Your task to perform on an android device: Open location settings Image 0: 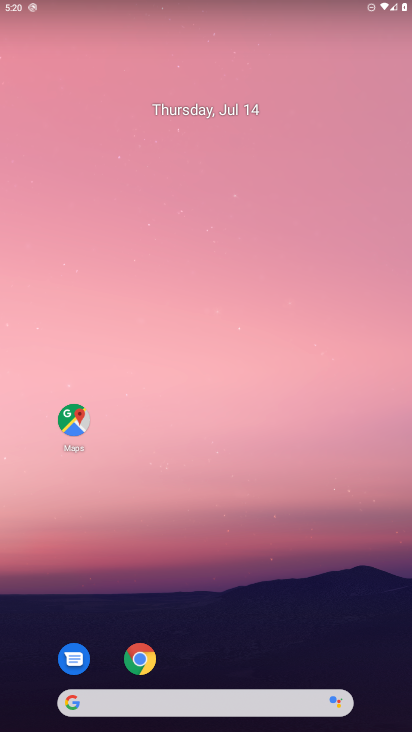
Step 0: drag from (221, 653) to (229, 103)
Your task to perform on an android device: Open location settings Image 1: 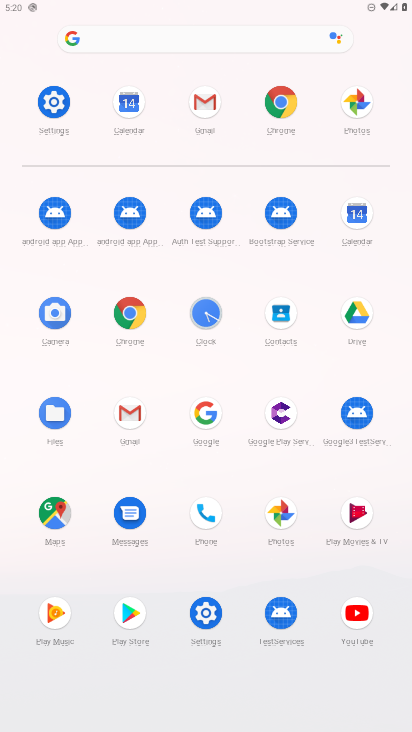
Step 1: click (55, 98)
Your task to perform on an android device: Open location settings Image 2: 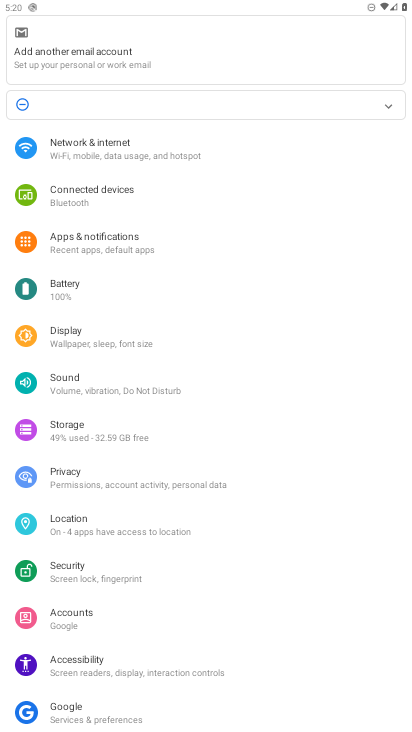
Step 2: click (82, 523)
Your task to perform on an android device: Open location settings Image 3: 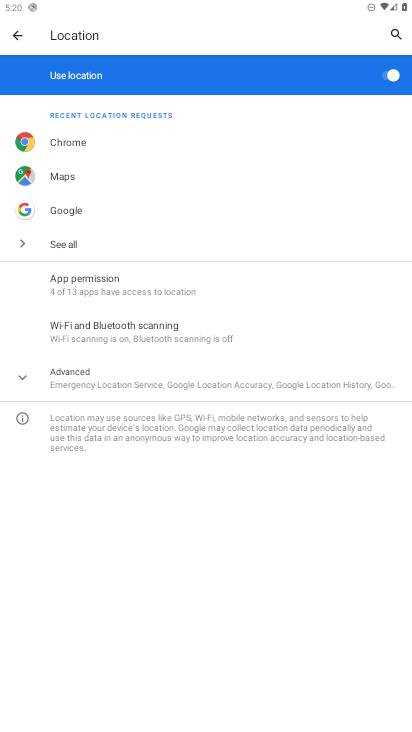
Step 3: click (22, 374)
Your task to perform on an android device: Open location settings Image 4: 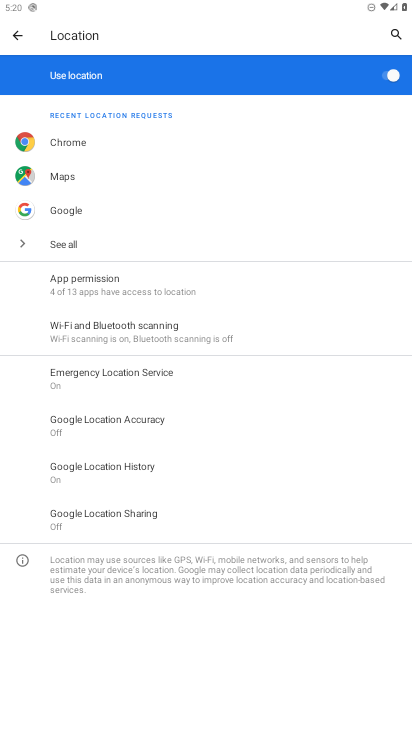
Step 4: task complete